Your task to perform on an android device: Search for the best rated kitchen reno kits on Lowes.com Image 0: 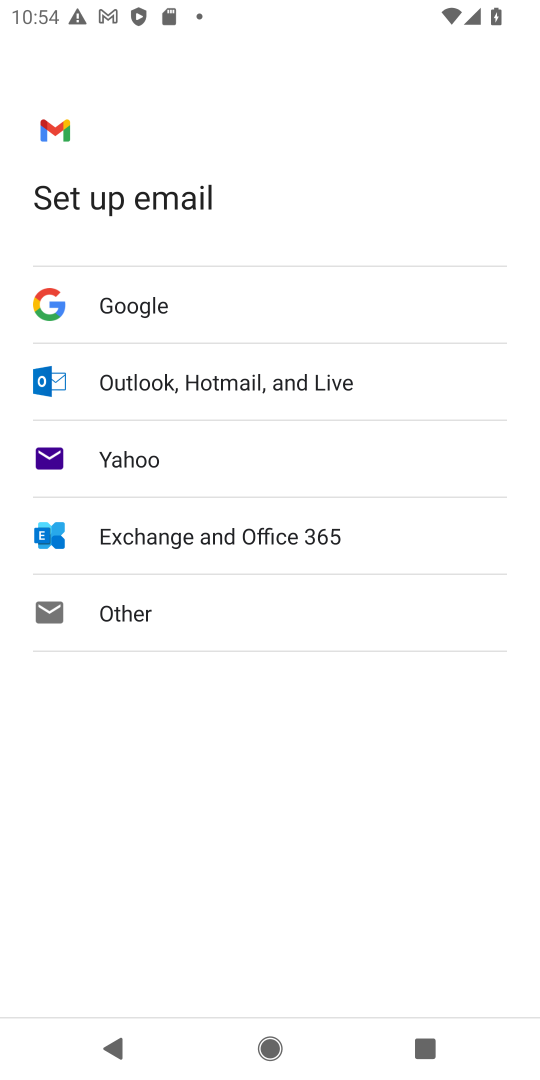
Step 0: press home button
Your task to perform on an android device: Search for the best rated kitchen reno kits on Lowes.com Image 1: 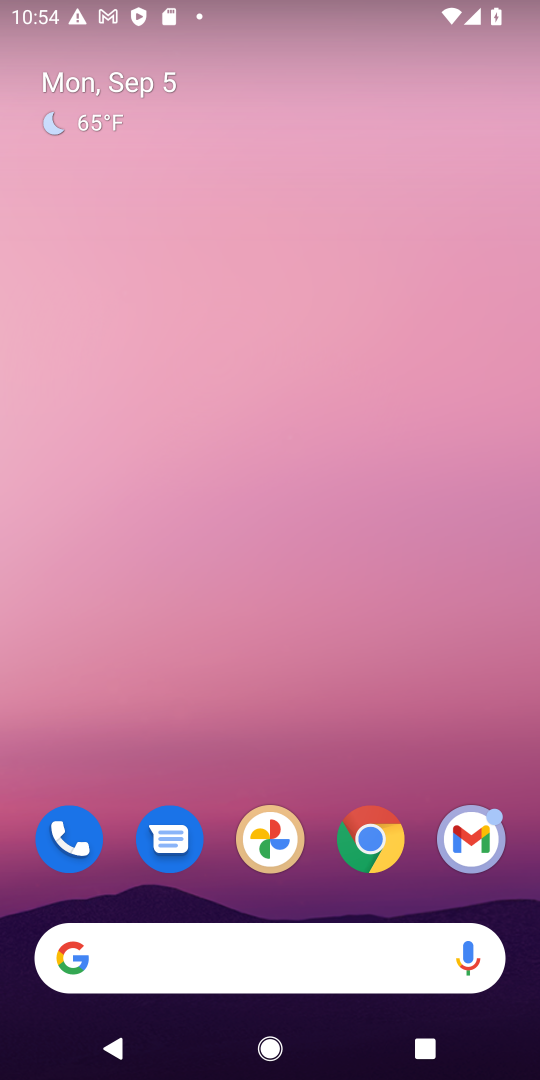
Step 1: drag from (227, 950) to (331, 314)
Your task to perform on an android device: Search for the best rated kitchen reno kits on Lowes.com Image 2: 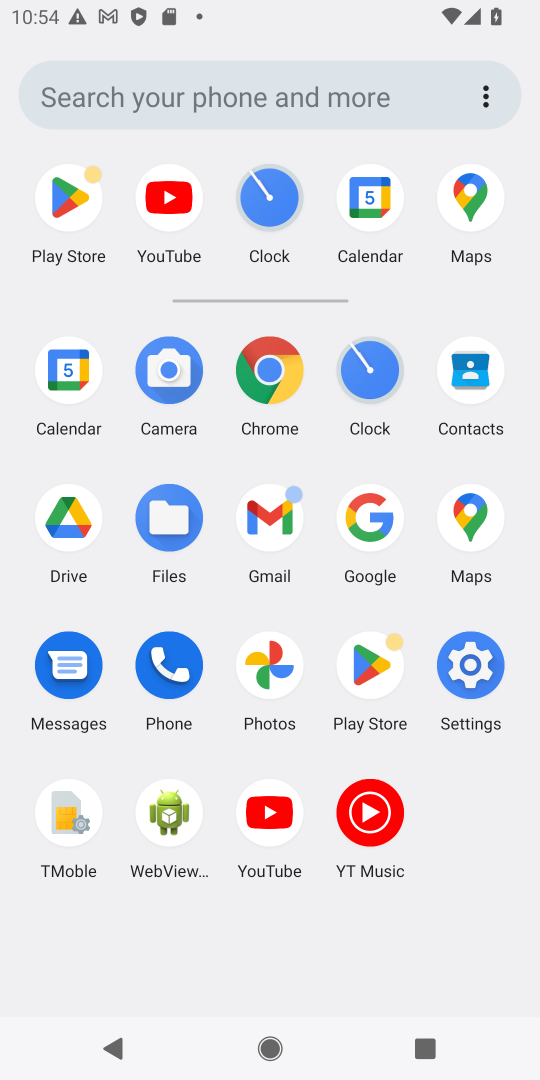
Step 2: click (382, 520)
Your task to perform on an android device: Search for the best rated kitchen reno kits on Lowes.com Image 3: 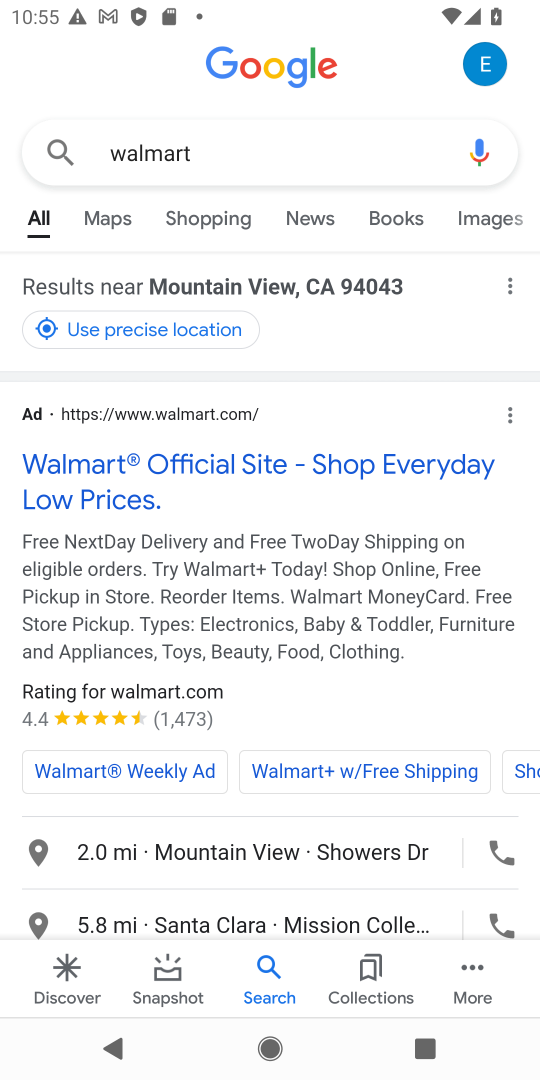
Step 3: click (275, 134)
Your task to perform on an android device: Search for the best rated kitchen reno kits on Lowes.com Image 4: 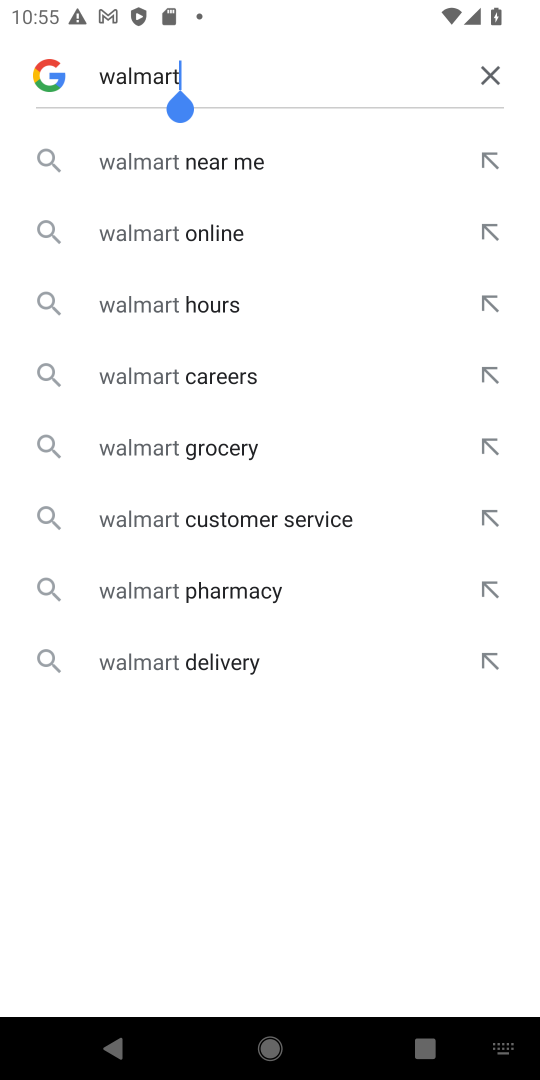
Step 4: click (490, 78)
Your task to perform on an android device: Search for the best rated kitchen reno kits on Lowes.com Image 5: 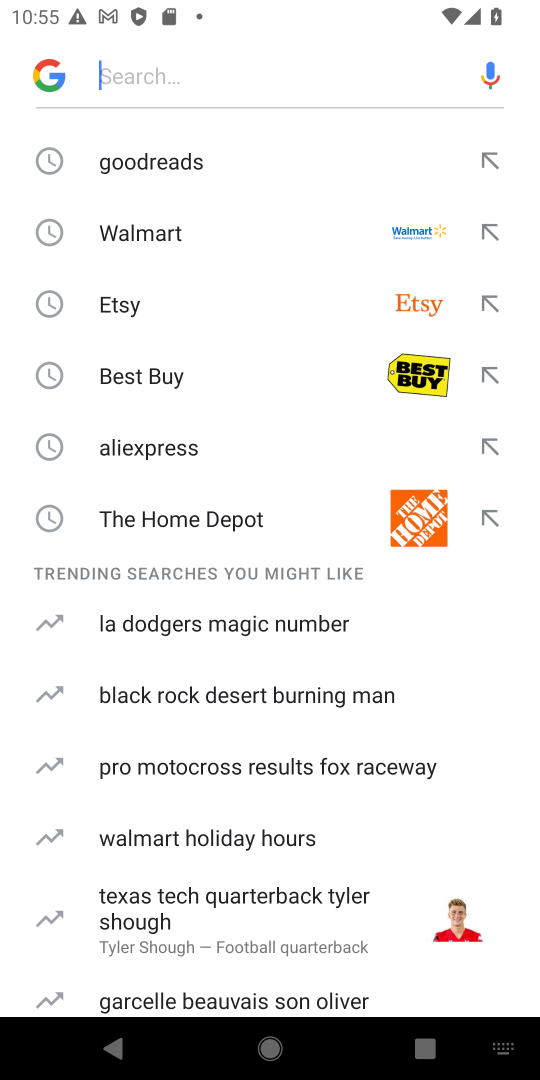
Step 5: type "Lowes.com"
Your task to perform on an android device: Search for the best rated kitchen reno kits on Lowes.com Image 6: 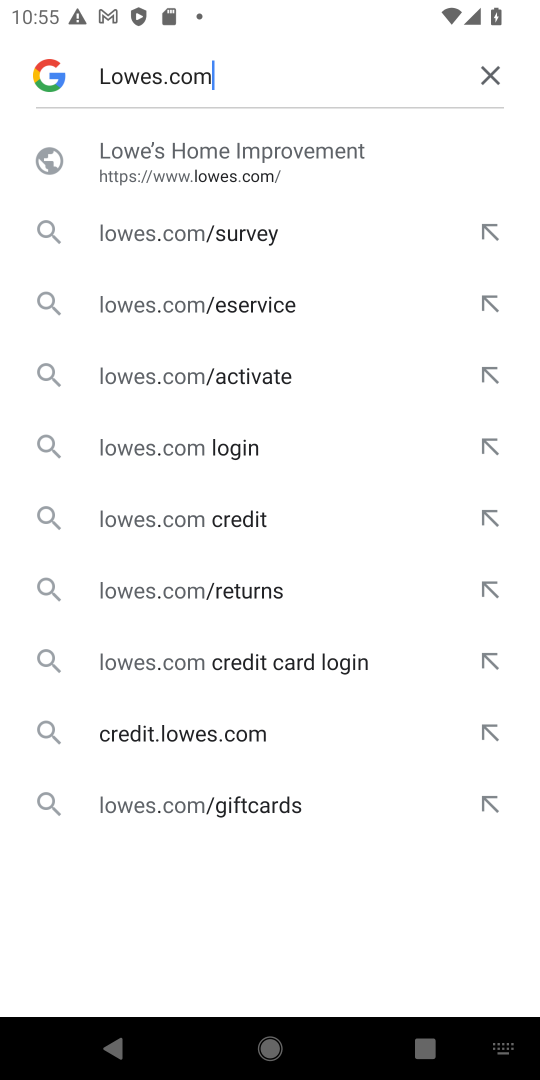
Step 6: click (221, 165)
Your task to perform on an android device: Search for the best rated kitchen reno kits on Lowes.com Image 7: 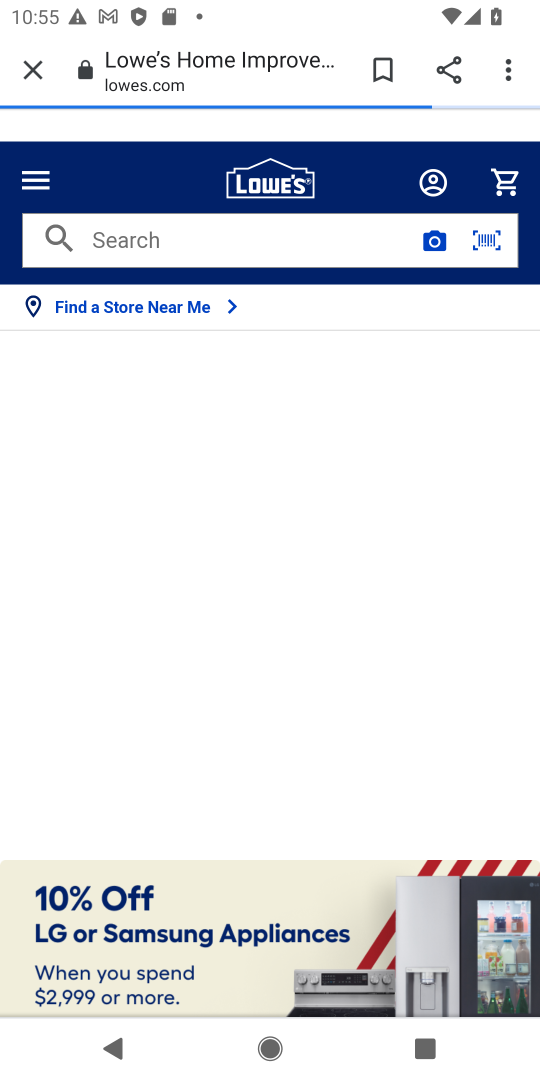
Step 7: click (136, 243)
Your task to perform on an android device: Search for the best rated kitchen reno kits on Lowes.com Image 8: 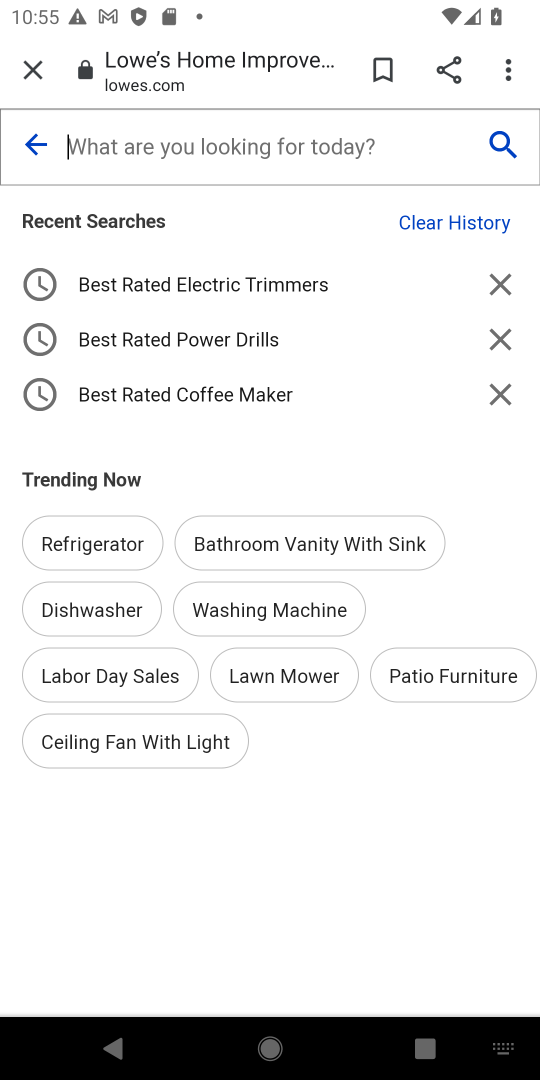
Step 8: type "best rated kitchen reno kits"
Your task to perform on an android device: Search for the best rated kitchen reno kits on Lowes.com Image 9: 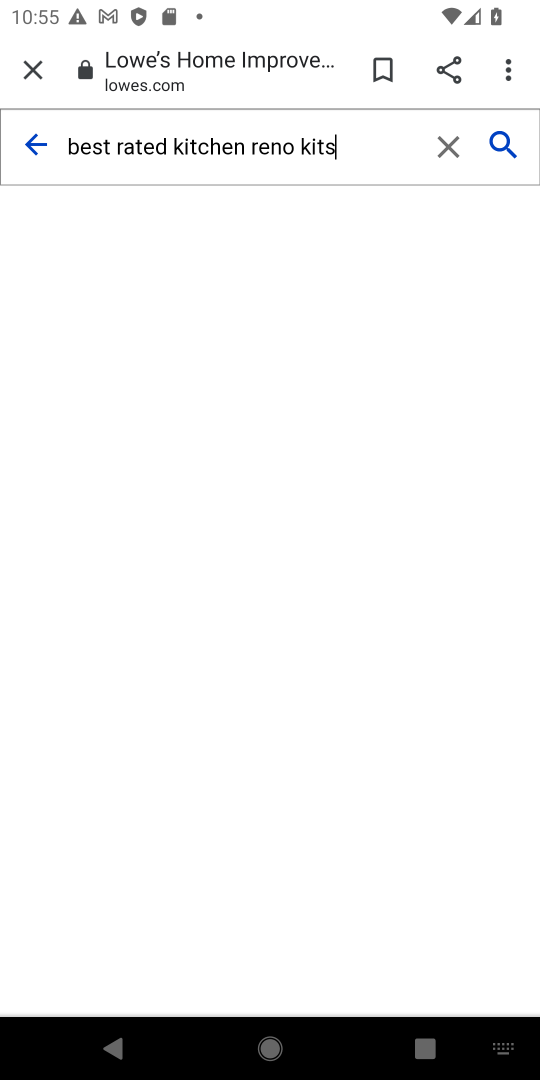
Step 9: click (506, 139)
Your task to perform on an android device: Search for the best rated kitchen reno kits on Lowes.com Image 10: 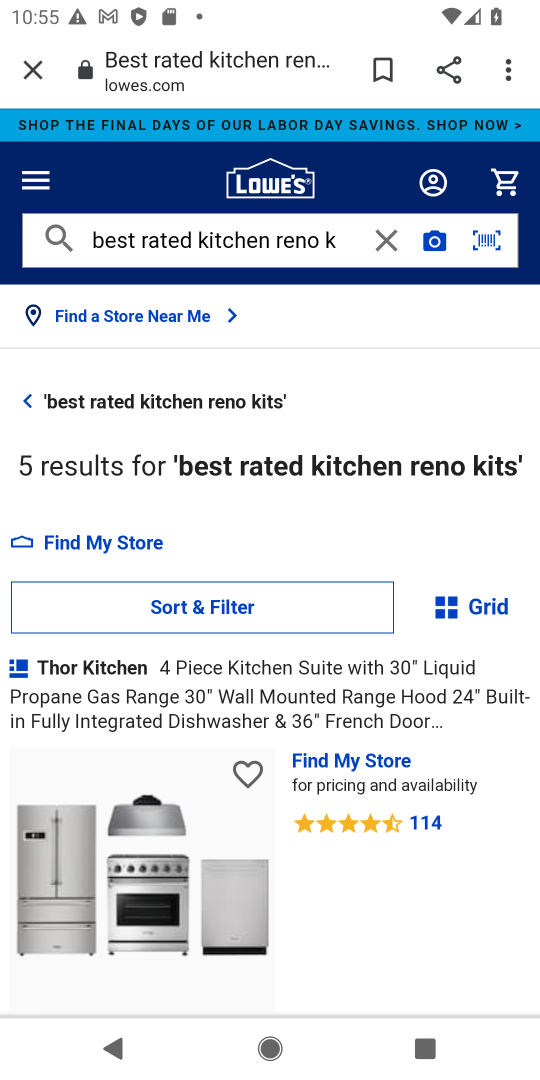
Step 10: task complete